Your task to perform on an android device: Open settings on Google Maps Image 0: 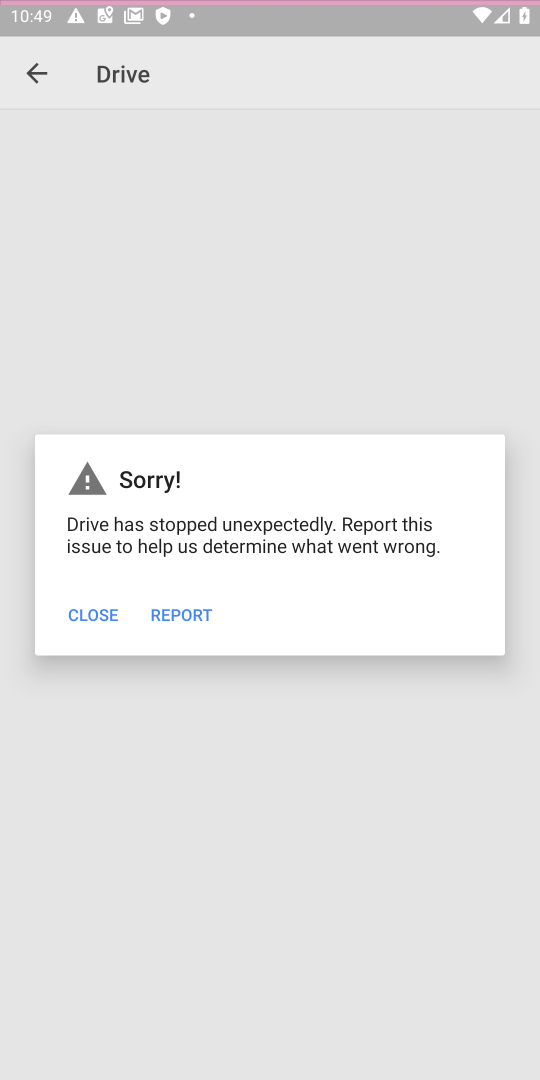
Step 0: press home button
Your task to perform on an android device: Open settings on Google Maps Image 1: 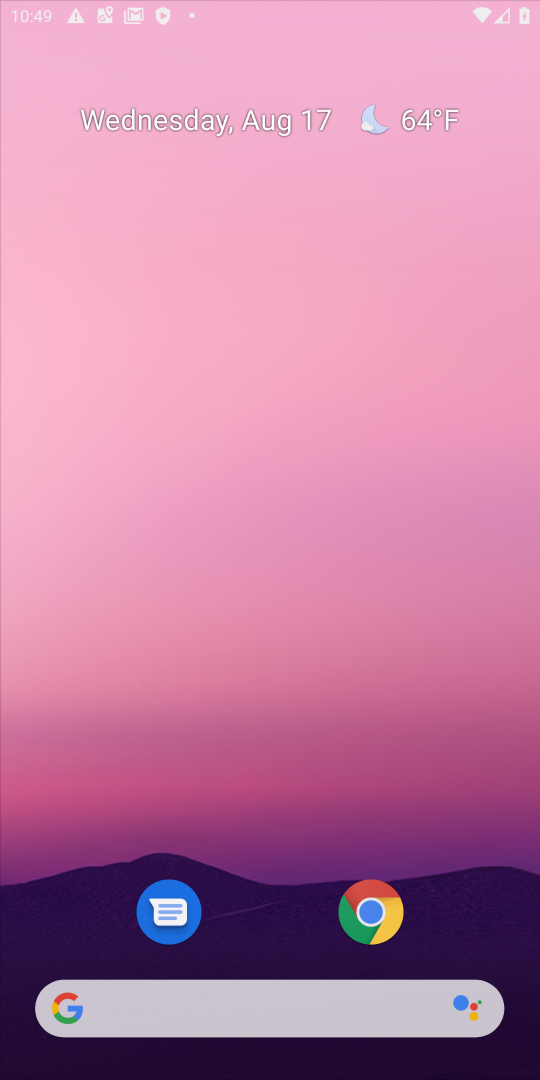
Step 1: drag from (259, 890) to (193, 410)
Your task to perform on an android device: Open settings on Google Maps Image 2: 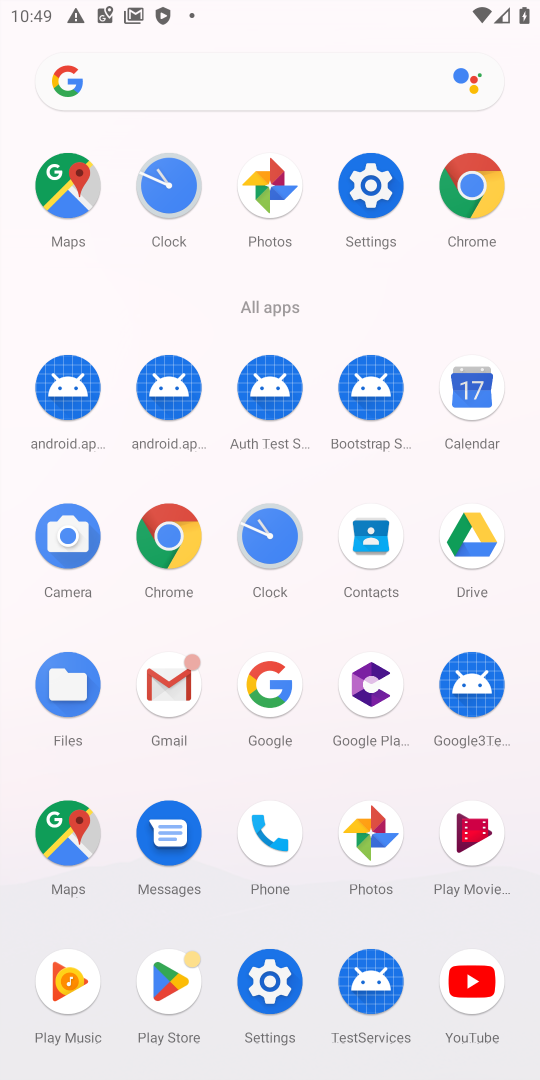
Step 2: click (54, 194)
Your task to perform on an android device: Open settings on Google Maps Image 3: 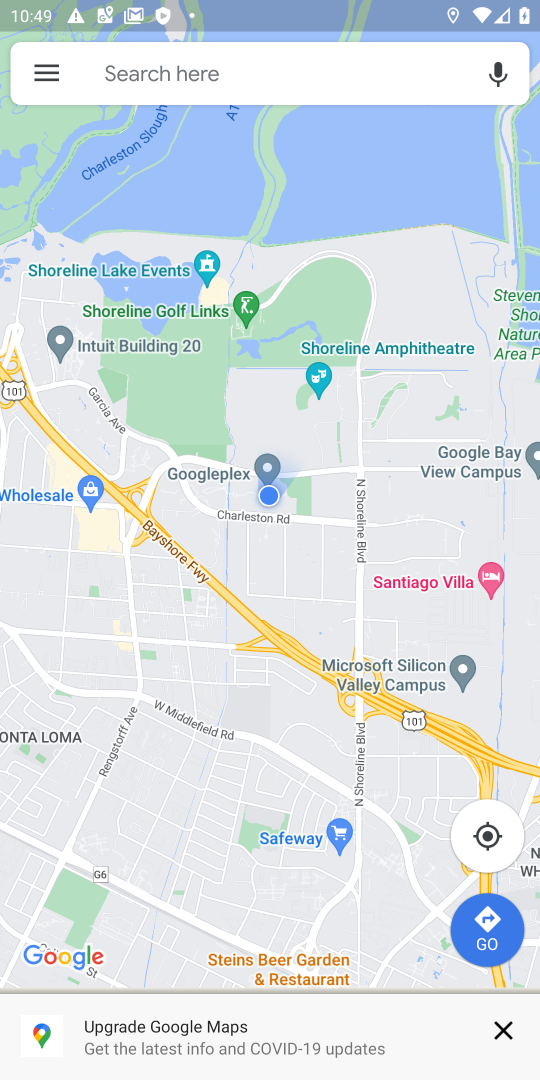
Step 3: click (51, 67)
Your task to perform on an android device: Open settings on Google Maps Image 4: 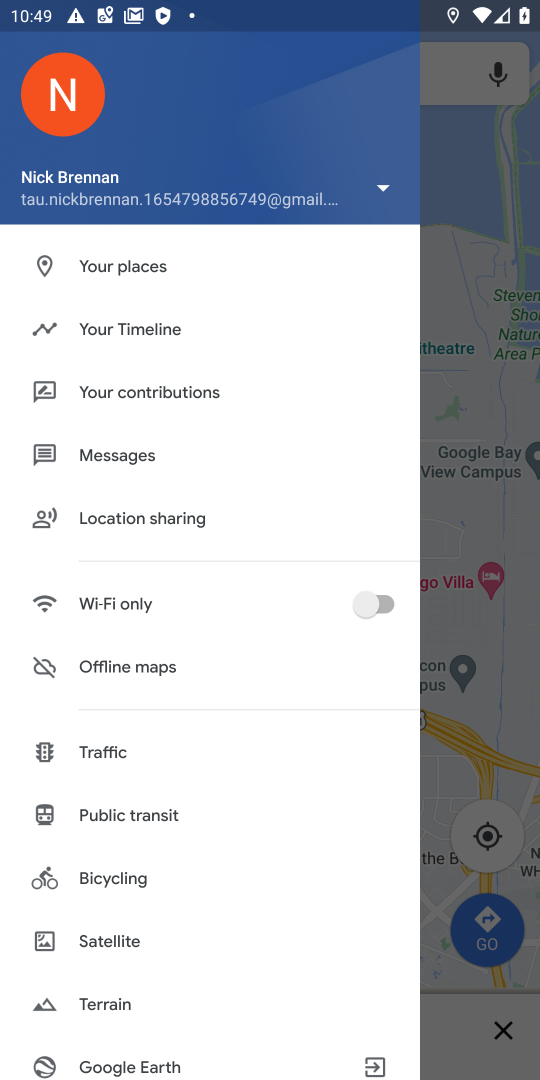
Step 4: drag from (215, 960) to (202, 526)
Your task to perform on an android device: Open settings on Google Maps Image 5: 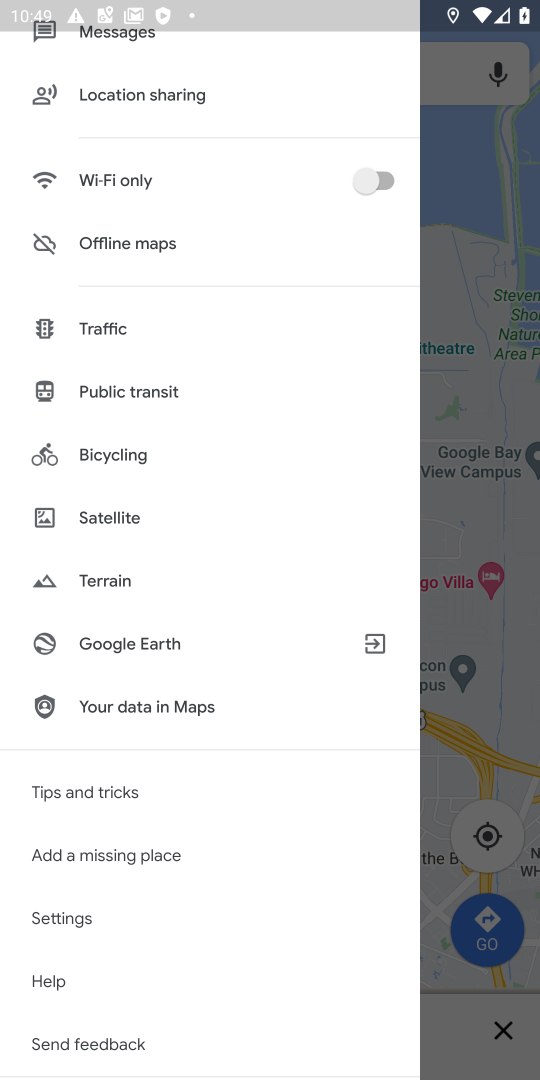
Step 5: click (66, 910)
Your task to perform on an android device: Open settings on Google Maps Image 6: 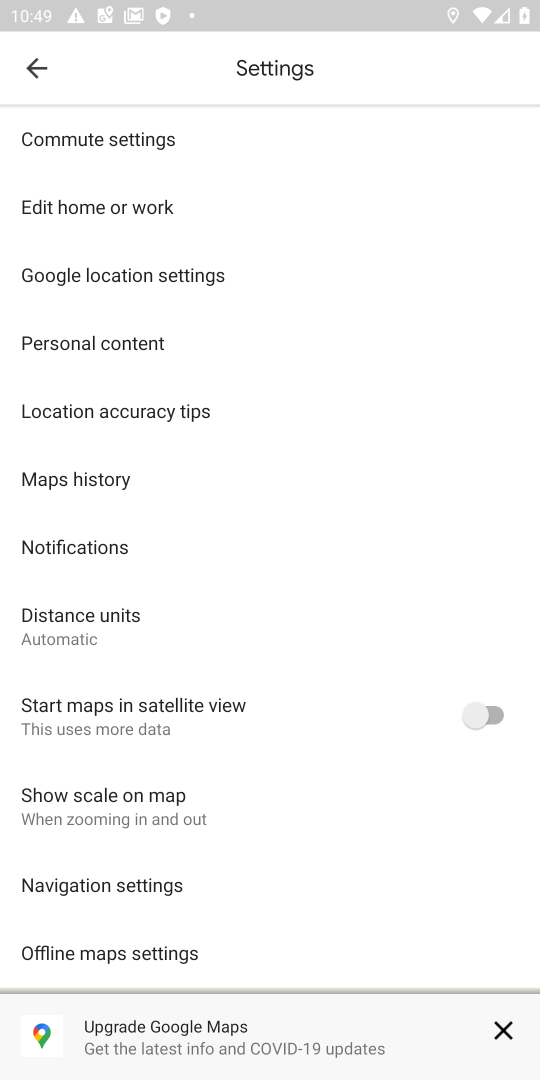
Step 6: task complete